Your task to perform on an android device: Show me recent news Image 0: 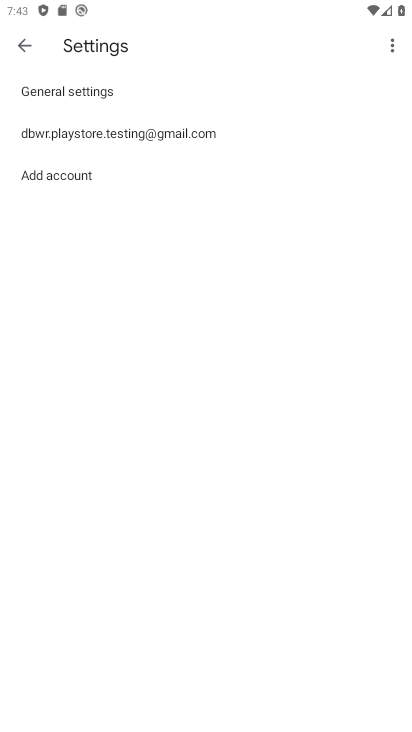
Step 0: press home button
Your task to perform on an android device: Show me recent news Image 1: 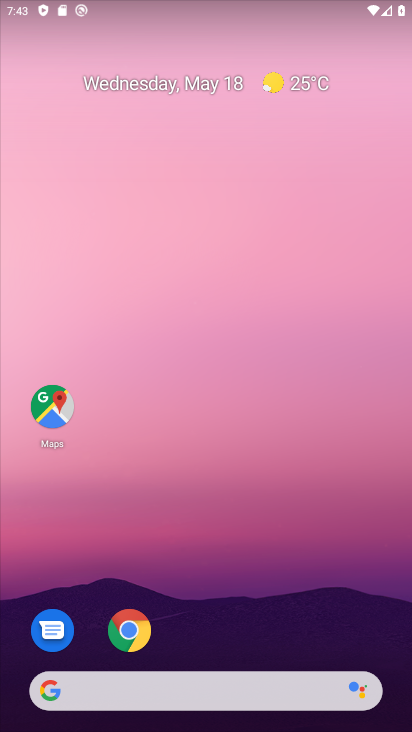
Step 1: drag from (243, 603) to (274, 207)
Your task to perform on an android device: Show me recent news Image 2: 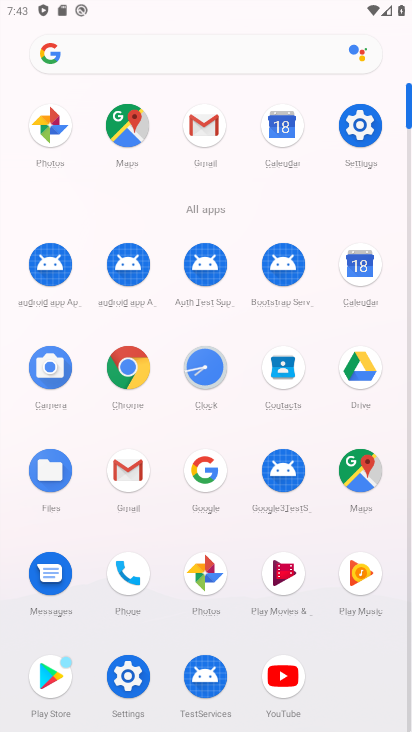
Step 2: click (212, 465)
Your task to perform on an android device: Show me recent news Image 3: 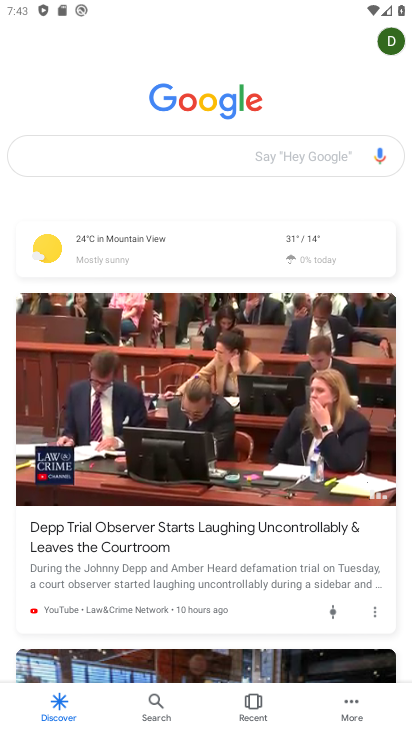
Step 3: click (216, 159)
Your task to perform on an android device: Show me recent news Image 4: 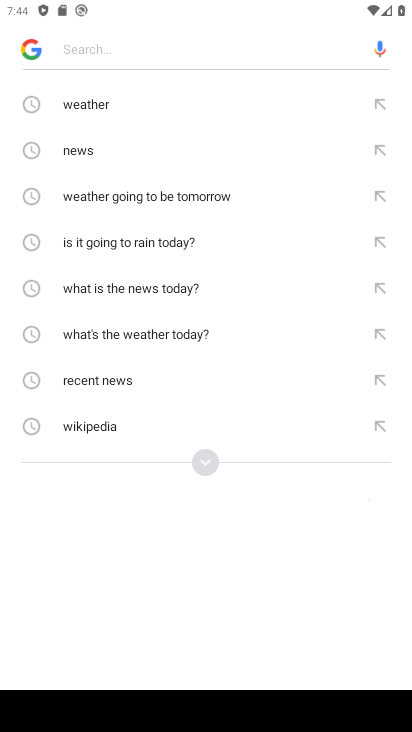
Step 4: click (118, 385)
Your task to perform on an android device: Show me recent news Image 5: 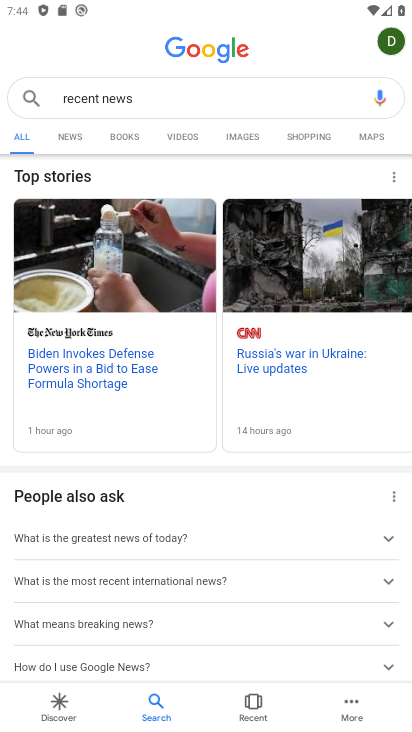
Step 5: task complete